Your task to perform on an android device: Set the phone to "Do not disturb". Image 0: 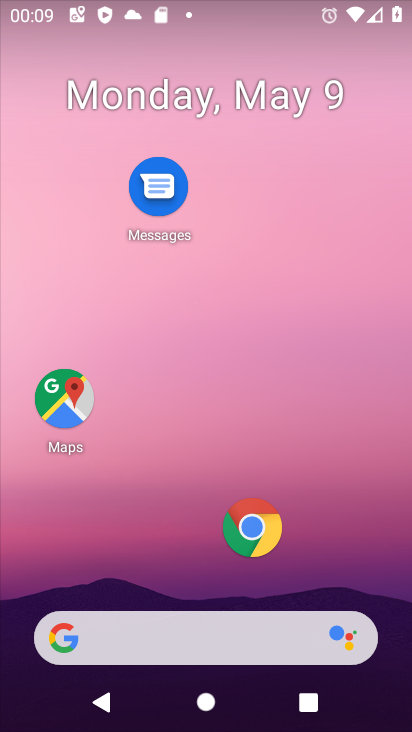
Step 0: drag from (200, 508) to (251, 54)
Your task to perform on an android device: Set the phone to "Do not disturb". Image 1: 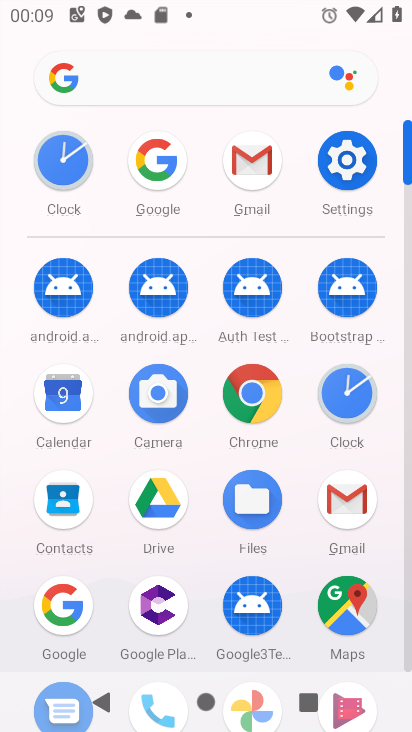
Step 1: click (343, 146)
Your task to perform on an android device: Set the phone to "Do not disturb". Image 2: 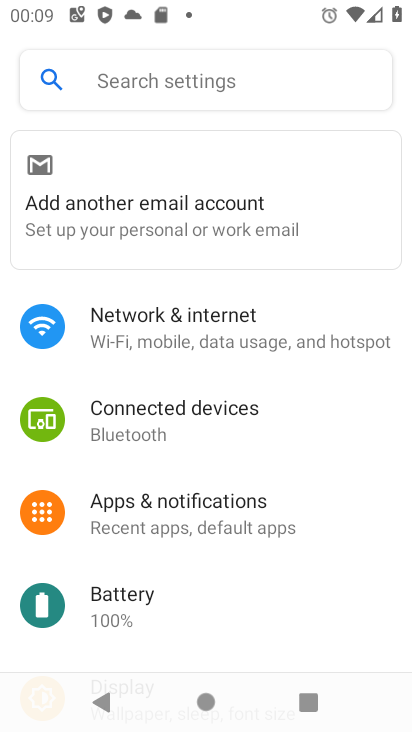
Step 2: drag from (234, 507) to (224, 327)
Your task to perform on an android device: Set the phone to "Do not disturb". Image 3: 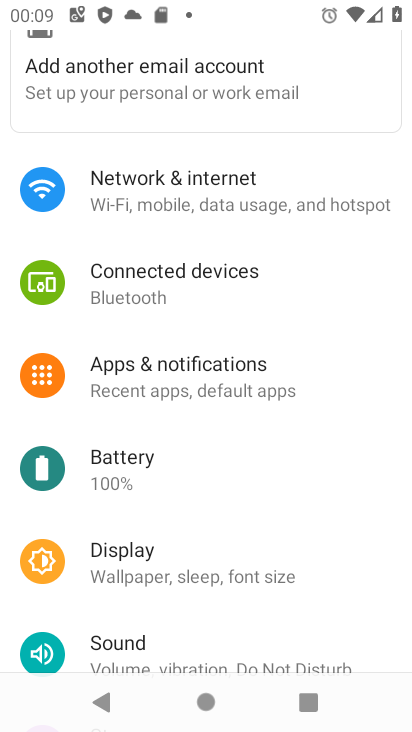
Step 3: drag from (226, 440) to (234, 293)
Your task to perform on an android device: Set the phone to "Do not disturb". Image 4: 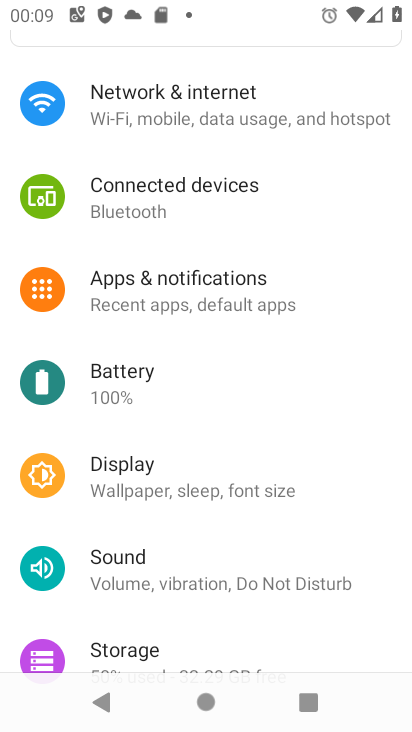
Step 4: click (151, 569)
Your task to perform on an android device: Set the phone to "Do not disturb". Image 5: 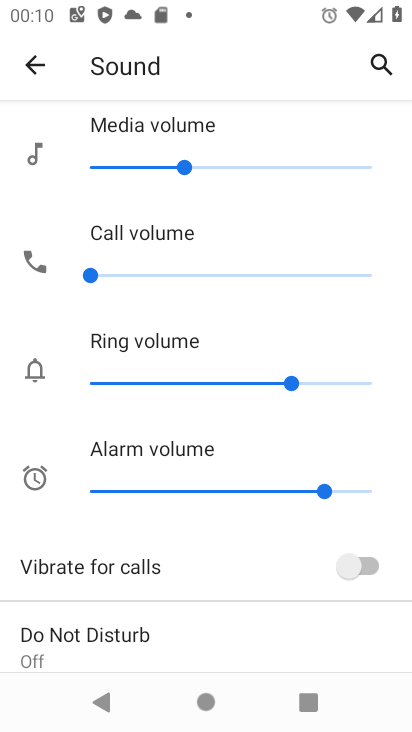
Step 5: drag from (189, 603) to (177, 263)
Your task to perform on an android device: Set the phone to "Do not disturb". Image 6: 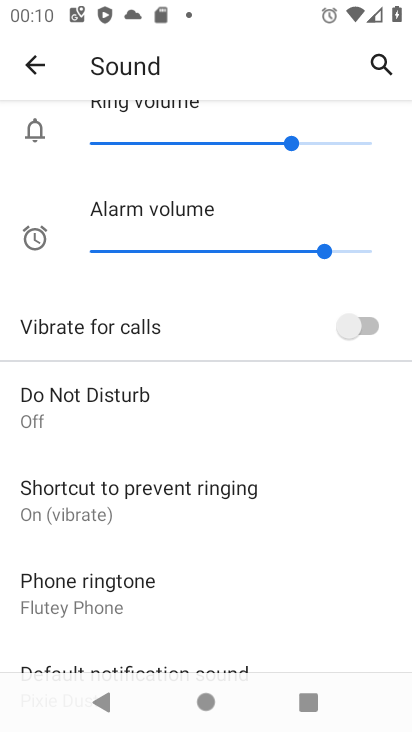
Step 6: click (85, 423)
Your task to perform on an android device: Set the phone to "Do not disturb". Image 7: 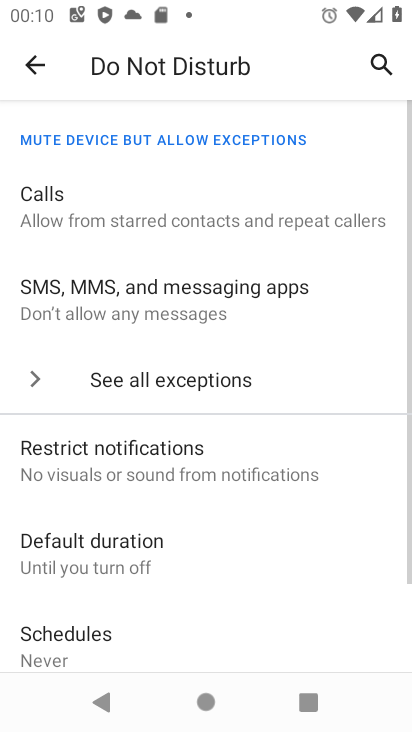
Step 7: task complete